Your task to perform on an android device: turn off data saver in the chrome app Image 0: 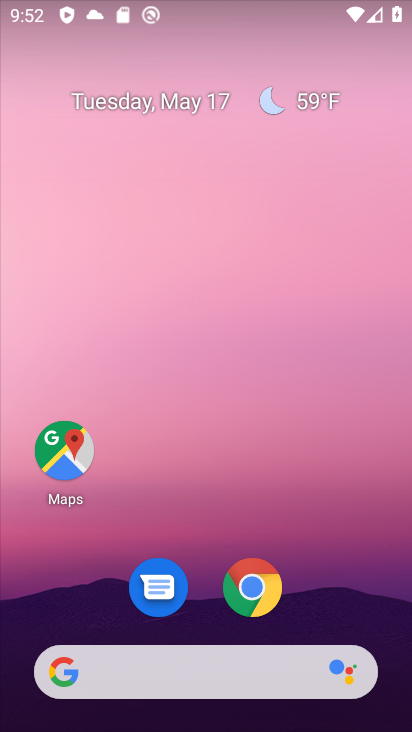
Step 0: click (260, 586)
Your task to perform on an android device: turn off data saver in the chrome app Image 1: 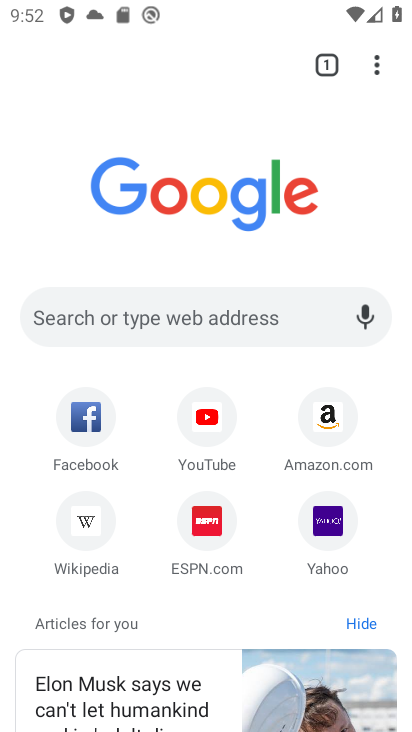
Step 1: click (381, 64)
Your task to perform on an android device: turn off data saver in the chrome app Image 2: 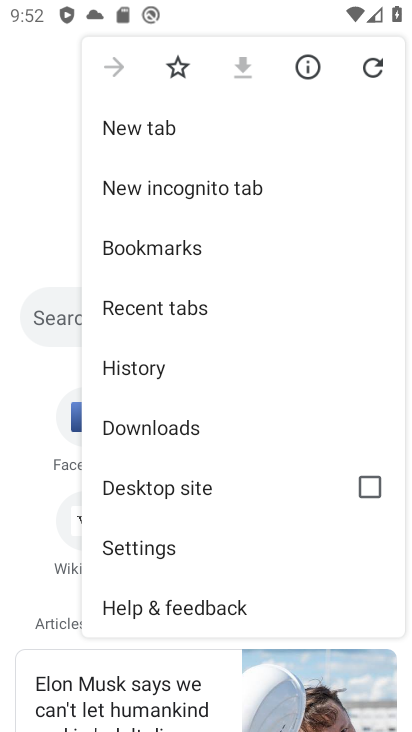
Step 2: click (161, 543)
Your task to perform on an android device: turn off data saver in the chrome app Image 3: 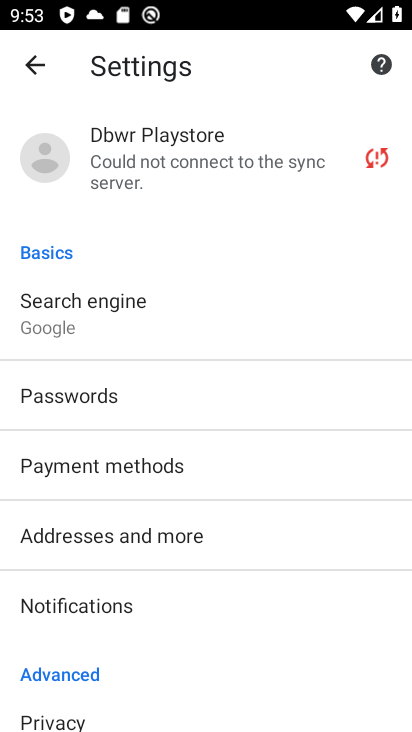
Step 3: drag from (225, 653) to (232, 385)
Your task to perform on an android device: turn off data saver in the chrome app Image 4: 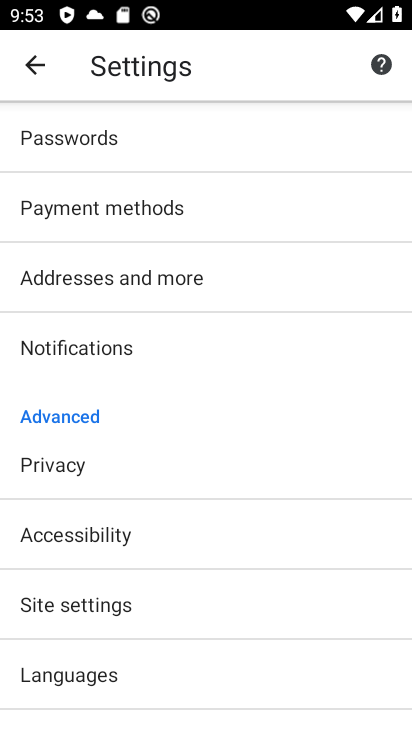
Step 4: drag from (218, 633) to (207, 446)
Your task to perform on an android device: turn off data saver in the chrome app Image 5: 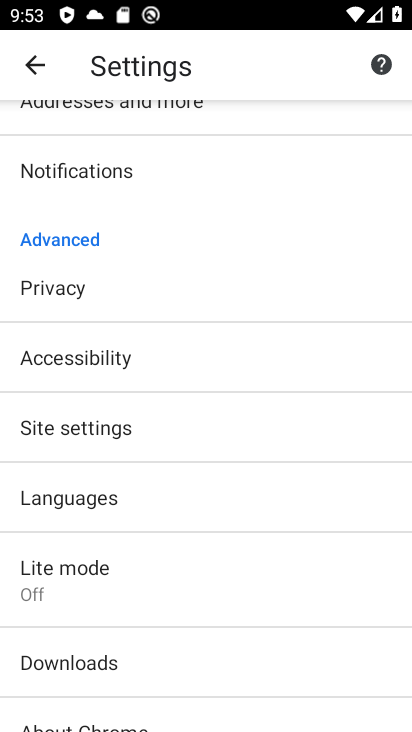
Step 5: click (96, 569)
Your task to perform on an android device: turn off data saver in the chrome app Image 6: 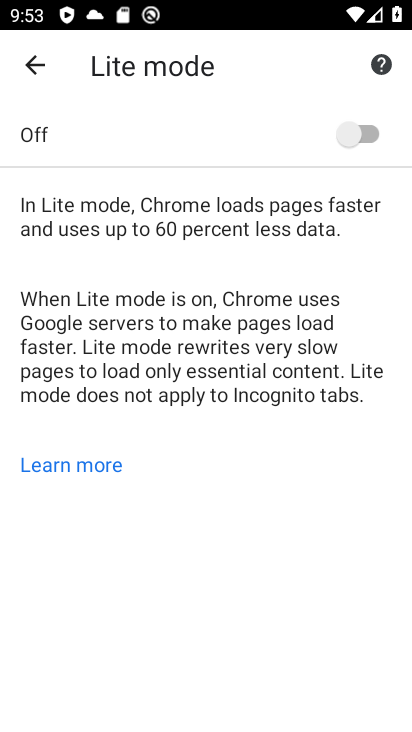
Step 6: task complete